Your task to perform on an android device: Open maps Image 0: 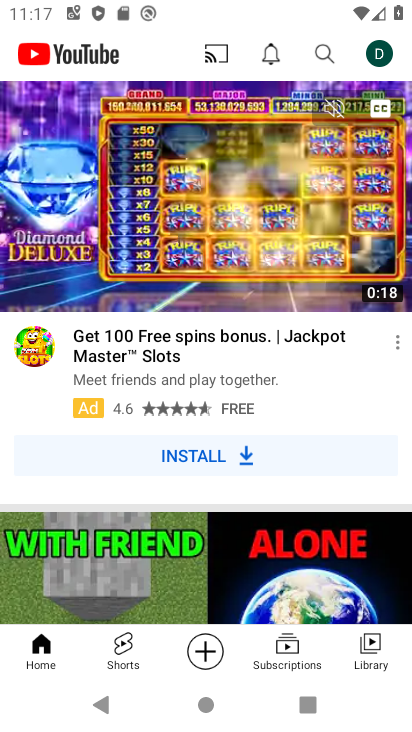
Step 0: press home button
Your task to perform on an android device: Open maps Image 1: 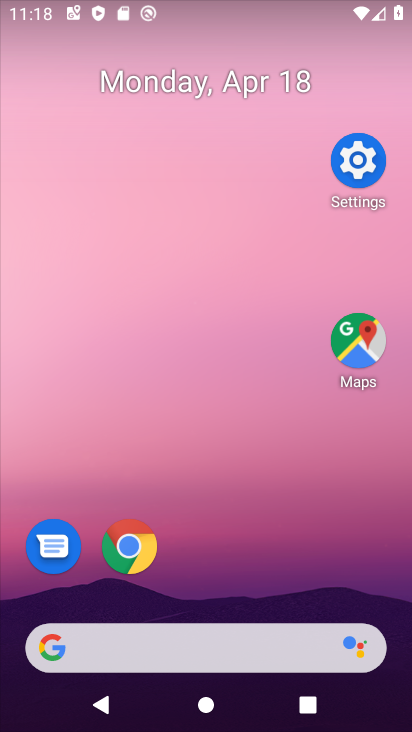
Step 1: press home button
Your task to perform on an android device: Open maps Image 2: 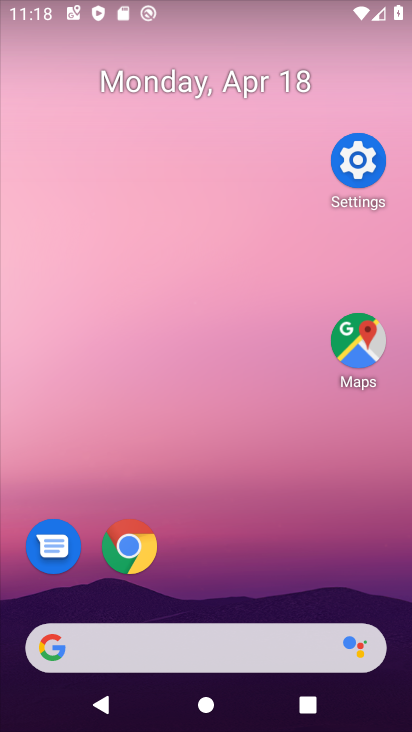
Step 2: press home button
Your task to perform on an android device: Open maps Image 3: 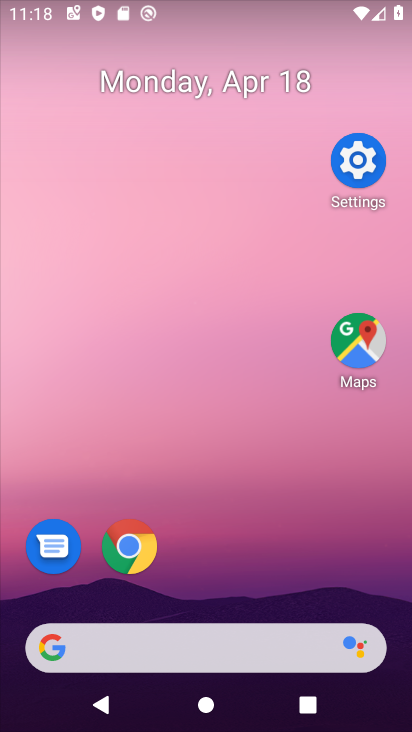
Step 3: press home button
Your task to perform on an android device: Open maps Image 4: 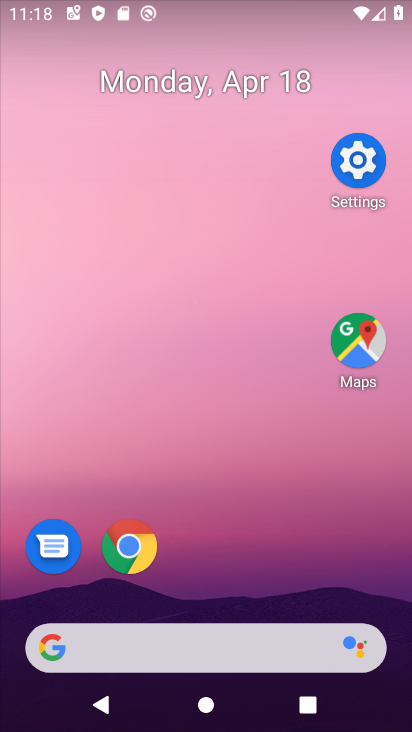
Step 4: press home button
Your task to perform on an android device: Open maps Image 5: 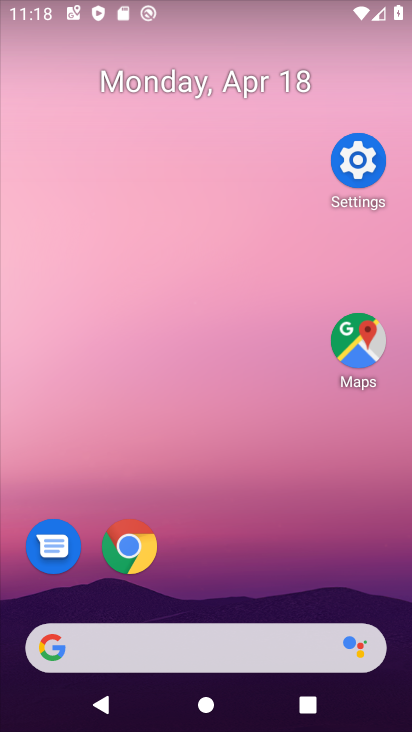
Step 5: drag from (265, 720) to (204, 101)
Your task to perform on an android device: Open maps Image 6: 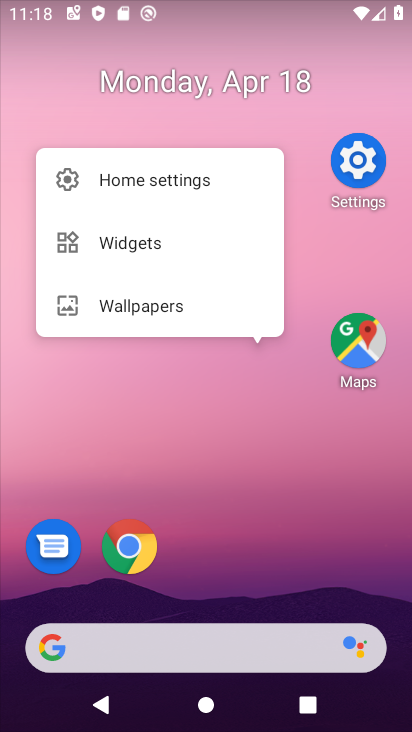
Step 6: click (226, 445)
Your task to perform on an android device: Open maps Image 7: 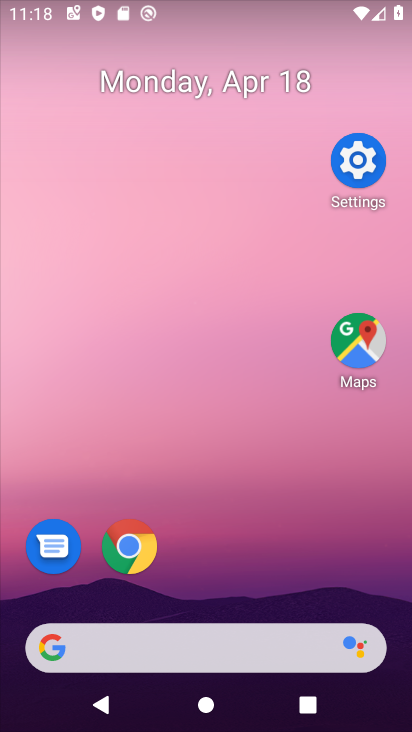
Step 7: click (227, 437)
Your task to perform on an android device: Open maps Image 8: 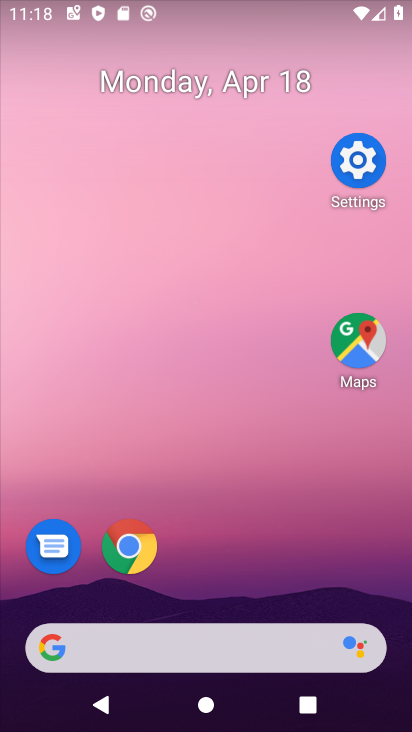
Step 8: click (218, 419)
Your task to perform on an android device: Open maps Image 9: 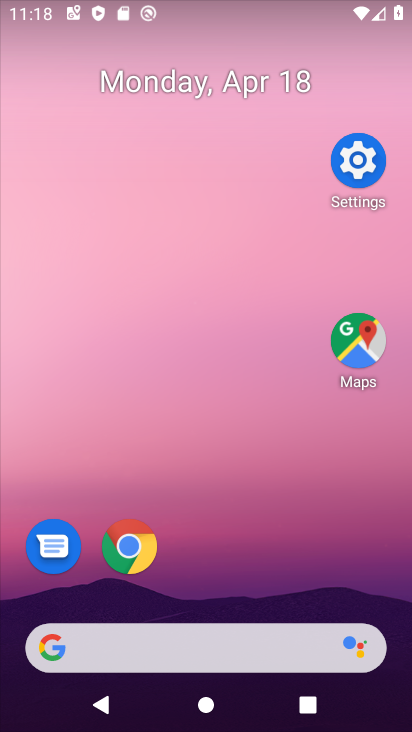
Step 9: click (208, 395)
Your task to perform on an android device: Open maps Image 10: 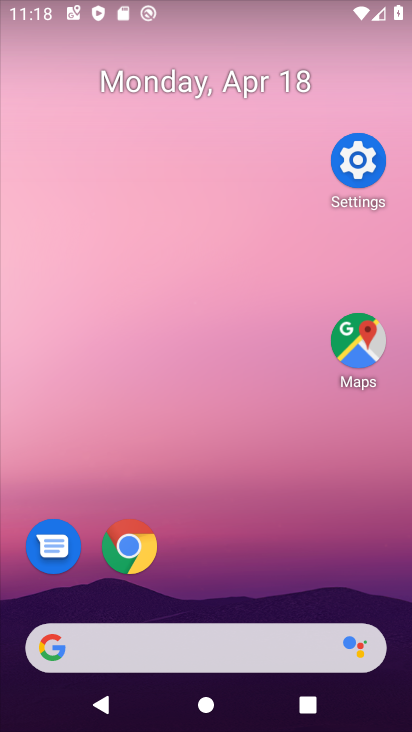
Step 10: drag from (273, 669) to (170, 154)
Your task to perform on an android device: Open maps Image 11: 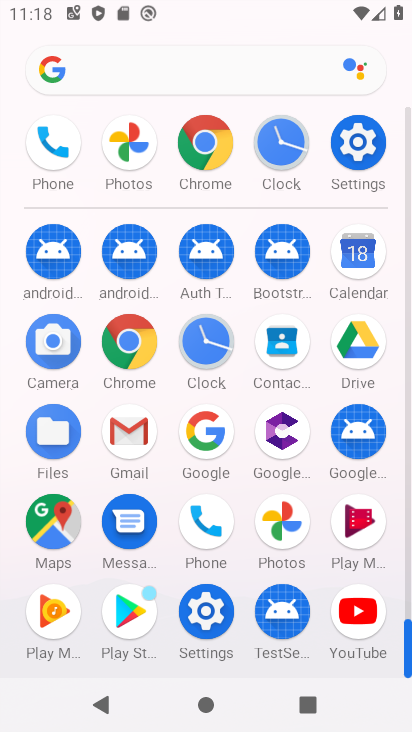
Step 11: click (57, 530)
Your task to perform on an android device: Open maps Image 12: 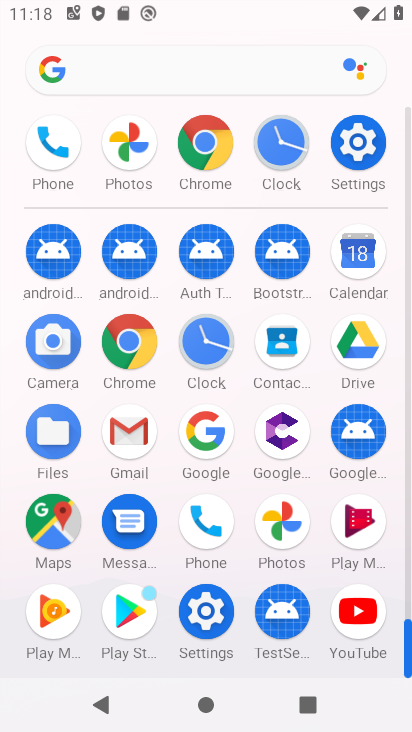
Step 12: click (42, 511)
Your task to perform on an android device: Open maps Image 13: 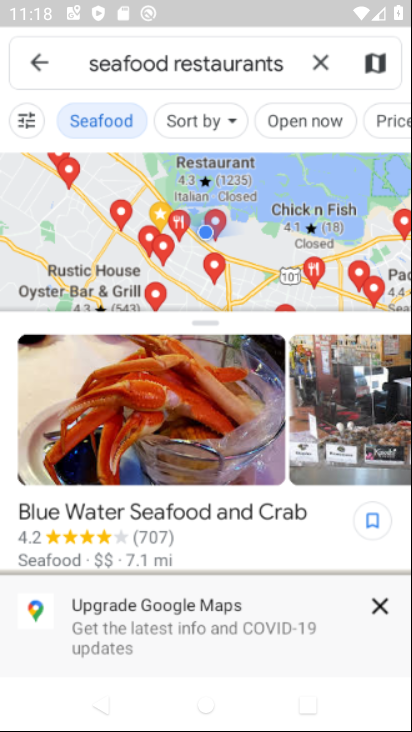
Step 13: click (63, 530)
Your task to perform on an android device: Open maps Image 14: 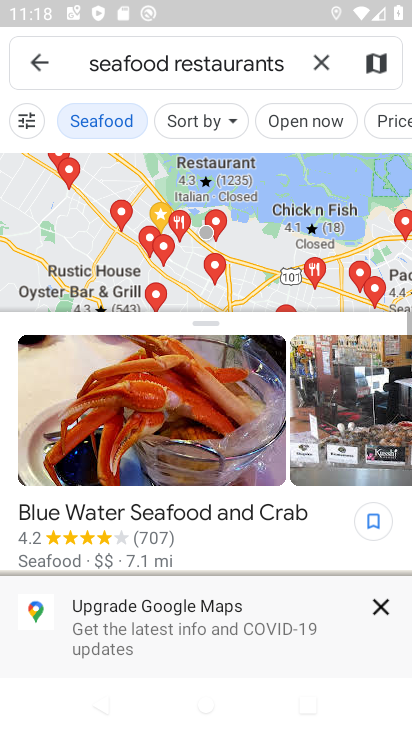
Step 14: drag from (205, 238) to (240, 254)
Your task to perform on an android device: Open maps Image 15: 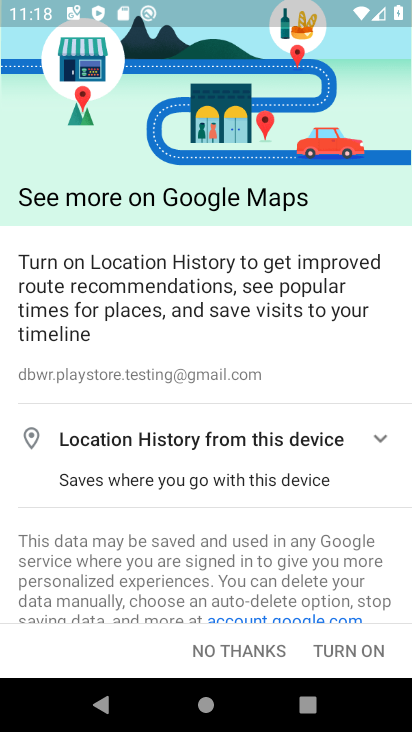
Step 15: drag from (232, 284) to (190, 130)
Your task to perform on an android device: Open maps Image 16: 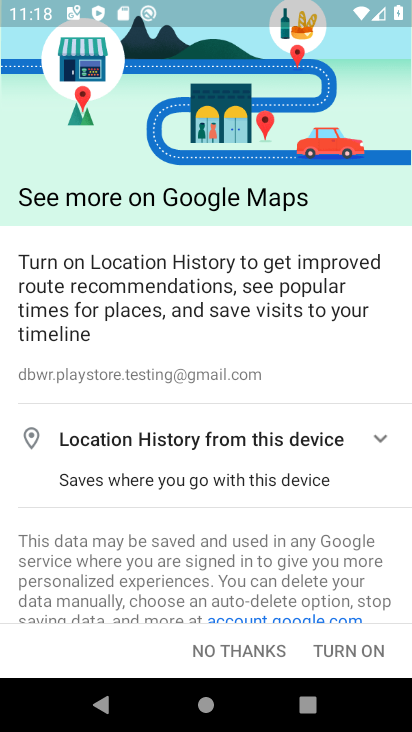
Step 16: drag from (147, 463) to (100, 121)
Your task to perform on an android device: Open maps Image 17: 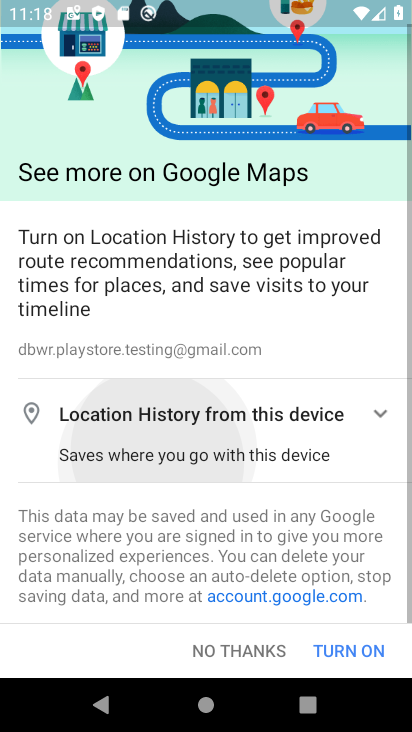
Step 17: drag from (101, 399) to (86, 61)
Your task to perform on an android device: Open maps Image 18: 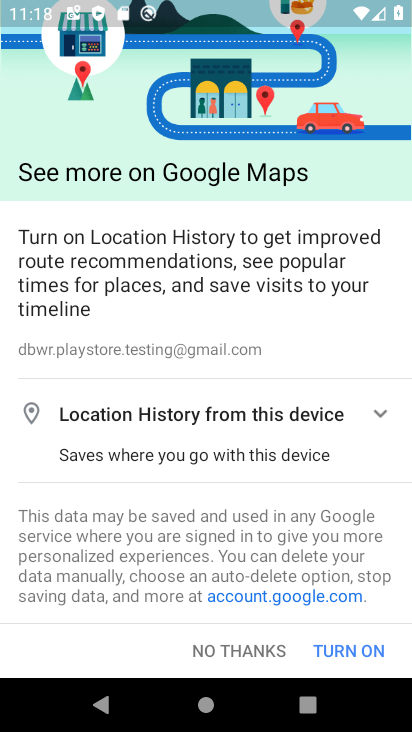
Step 18: drag from (112, 204) to (103, 114)
Your task to perform on an android device: Open maps Image 19: 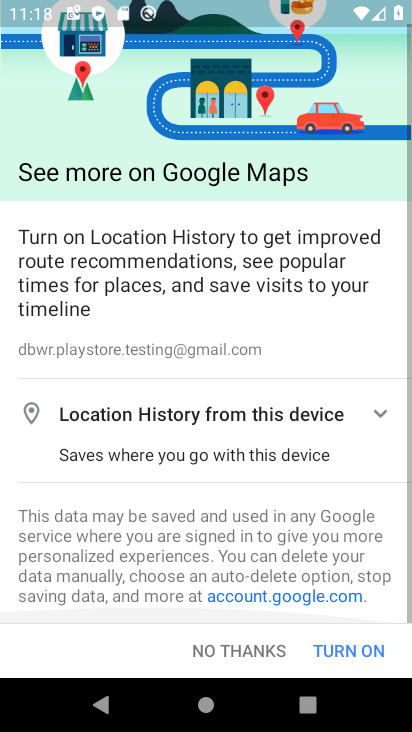
Step 19: drag from (266, 539) to (261, 363)
Your task to perform on an android device: Open maps Image 20: 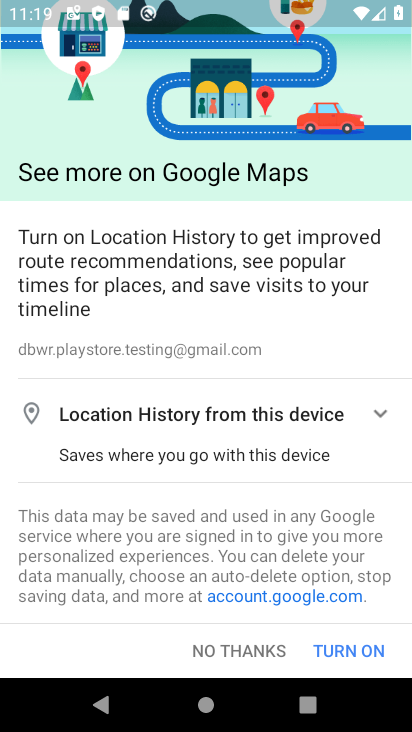
Step 20: drag from (218, 340) to (348, 516)
Your task to perform on an android device: Open maps Image 21: 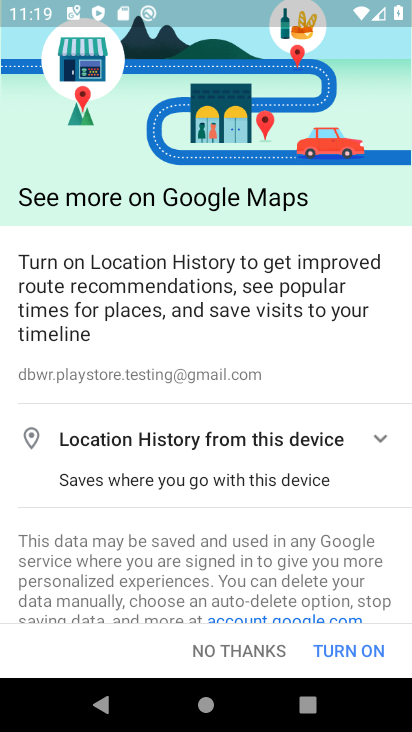
Step 21: press home button
Your task to perform on an android device: Open maps Image 22: 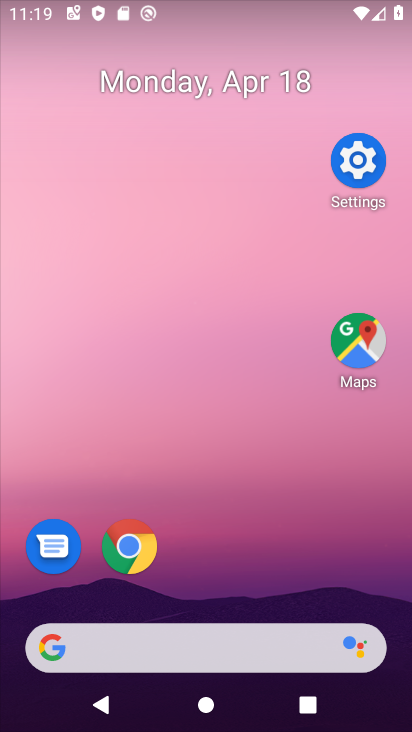
Step 22: drag from (270, 662) to (273, 102)
Your task to perform on an android device: Open maps Image 23: 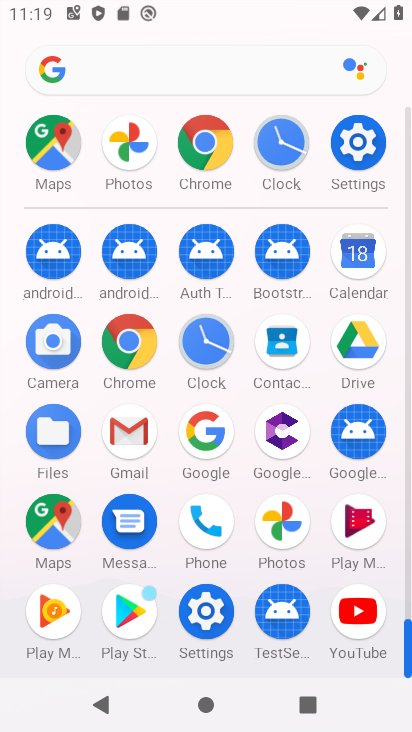
Step 23: click (56, 521)
Your task to perform on an android device: Open maps Image 24: 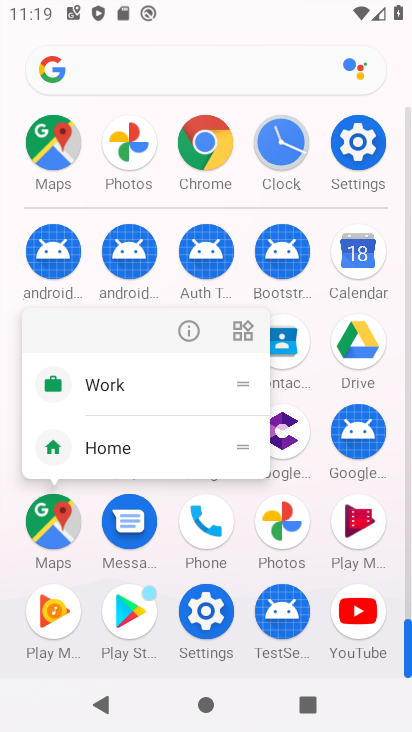
Step 24: click (60, 505)
Your task to perform on an android device: Open maps Image 25: 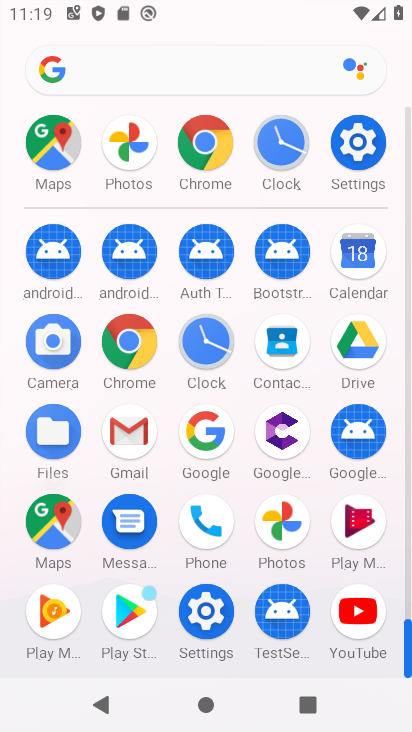
Step 25: click (58, 504)
Your task to perform on an android device: Open maps Image 26: 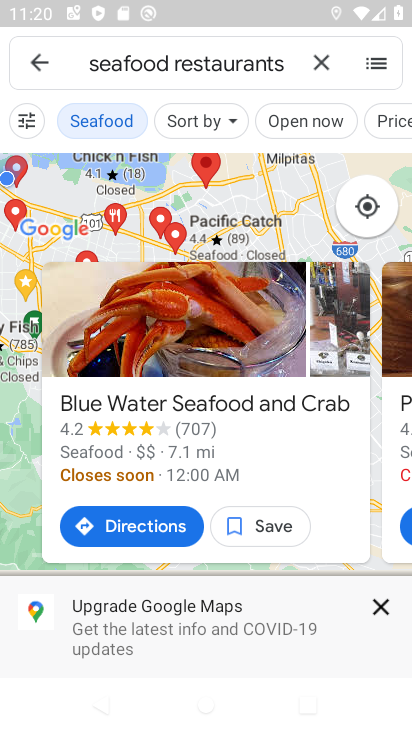
Step 26: click (37, 57)
Your task to perform on an android device: Open maps Image 27: 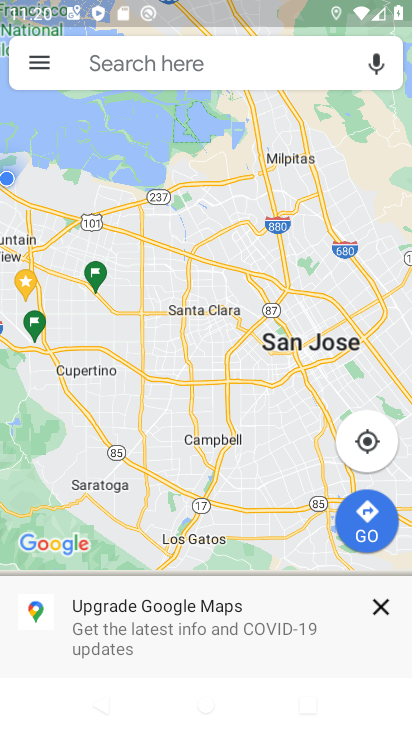
Step 27: task complete